Your task to perform on an android device: Open eBay Image 0: 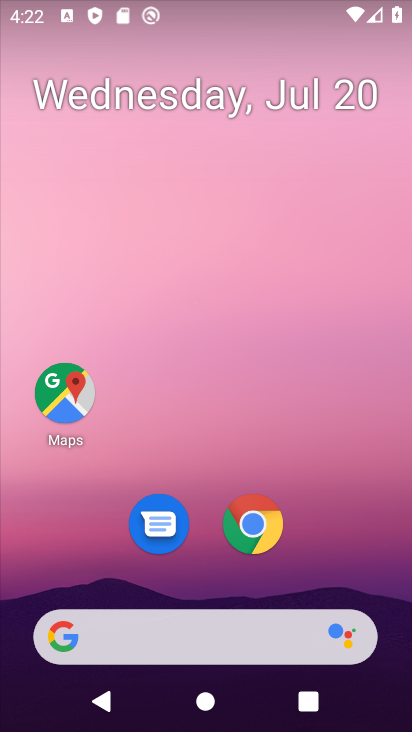
Step 0: click (229, 654)
Your task to perform on an android device: Open eBay Image 1: 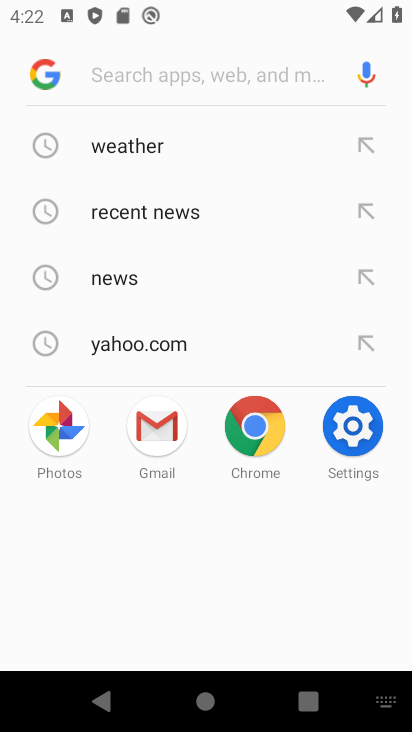
Step 1: type "ebay"
Your task to perform on an android device: Open eBay Image 2: 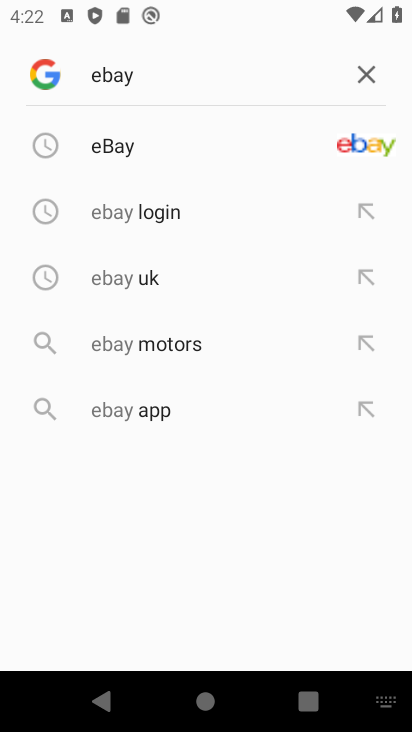
Step 2: click (378, 148)
Your task to perform on an android device: Open eBay Image 3: 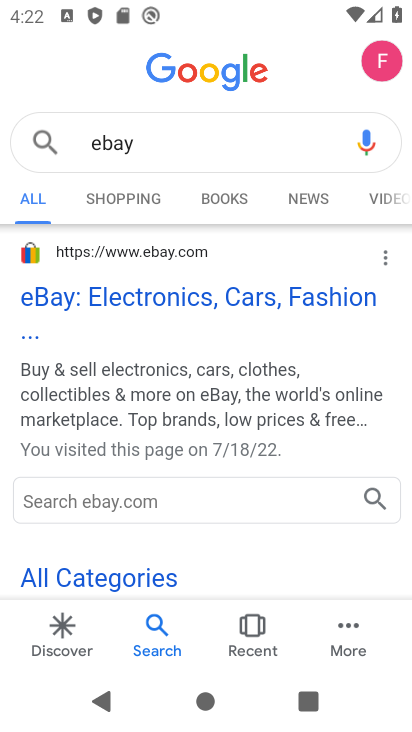
Step 3: click (42, 295)
Your task to perform on an android device: Open eBay Image 4: 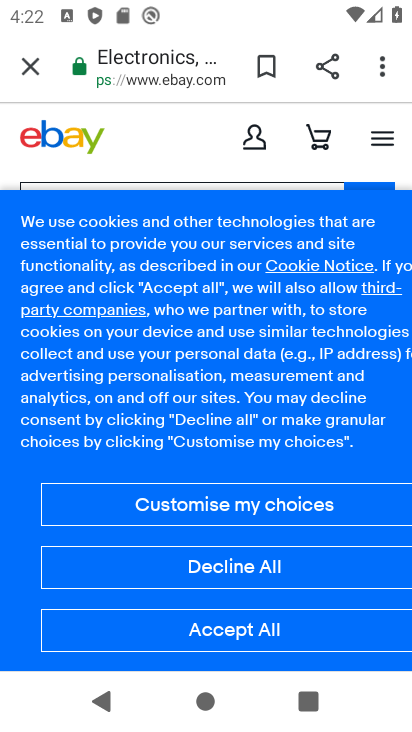
Step 4: task complete